Your task to perform on an android device: open app "Facebook Messenger" Image 0: 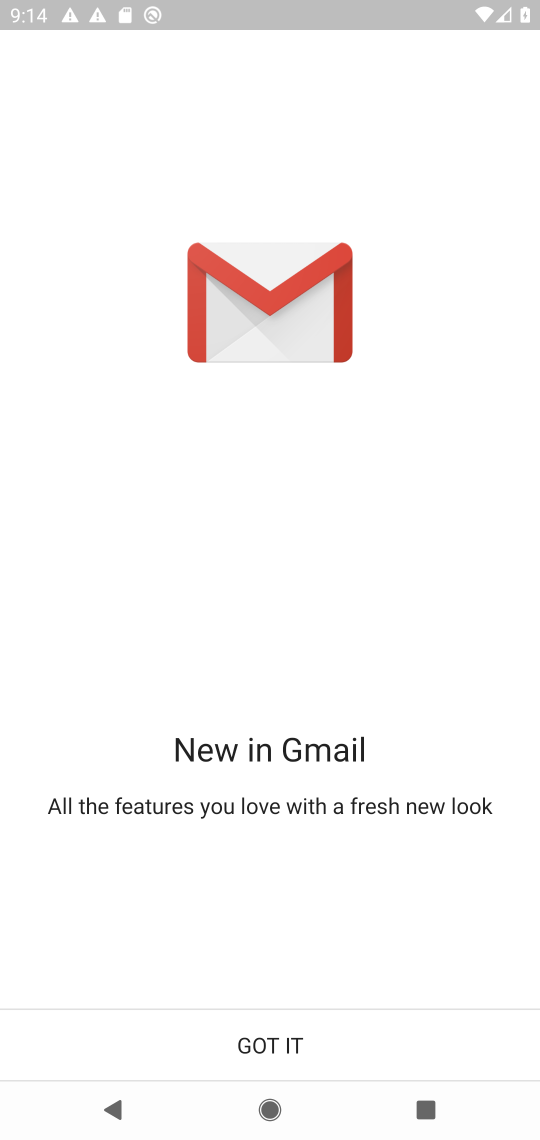
Step 0: press home button
Your task to perform on an android device: open app "Facebook Messenger" Image 1: 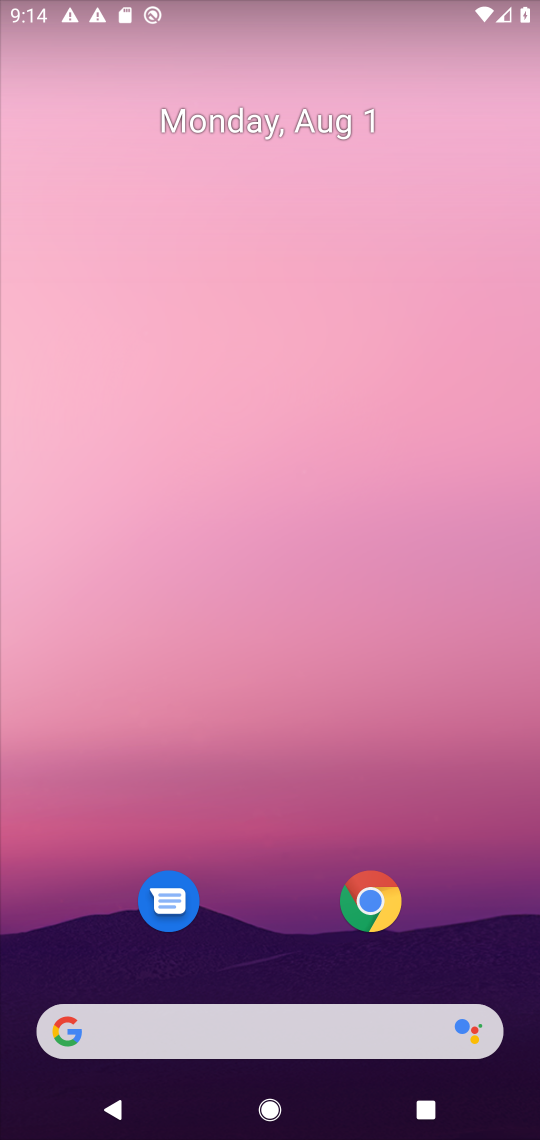
Step 1: drag from (292, 896) to (337, 0)
Your task to perform on an android device: open app "Facebook Messenger" Image 2: 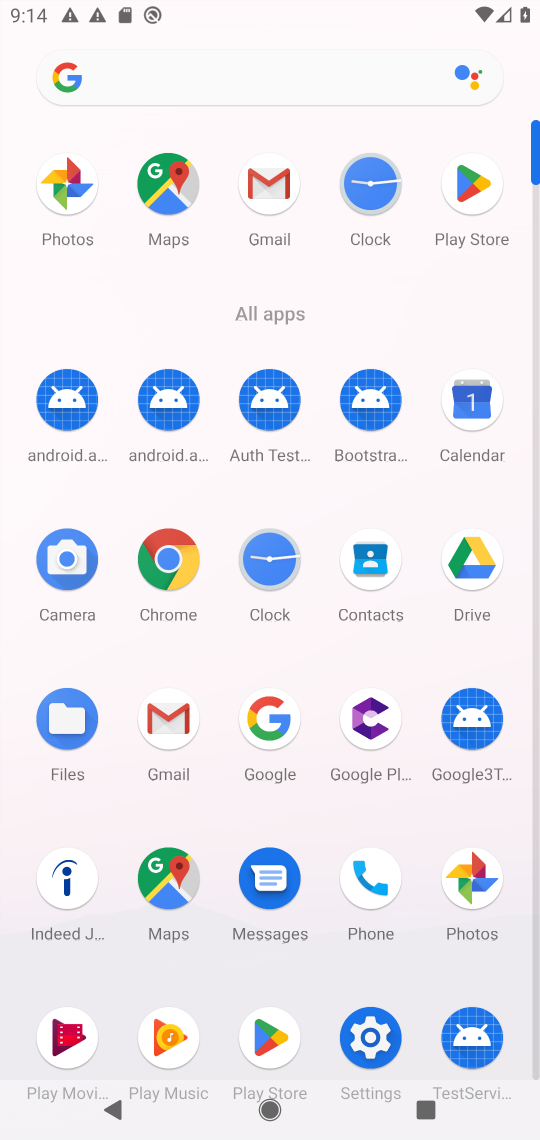
Step 2: click (477, 191)
Your task to perform on an android device: open app "Facebook Messenger" Image 3: 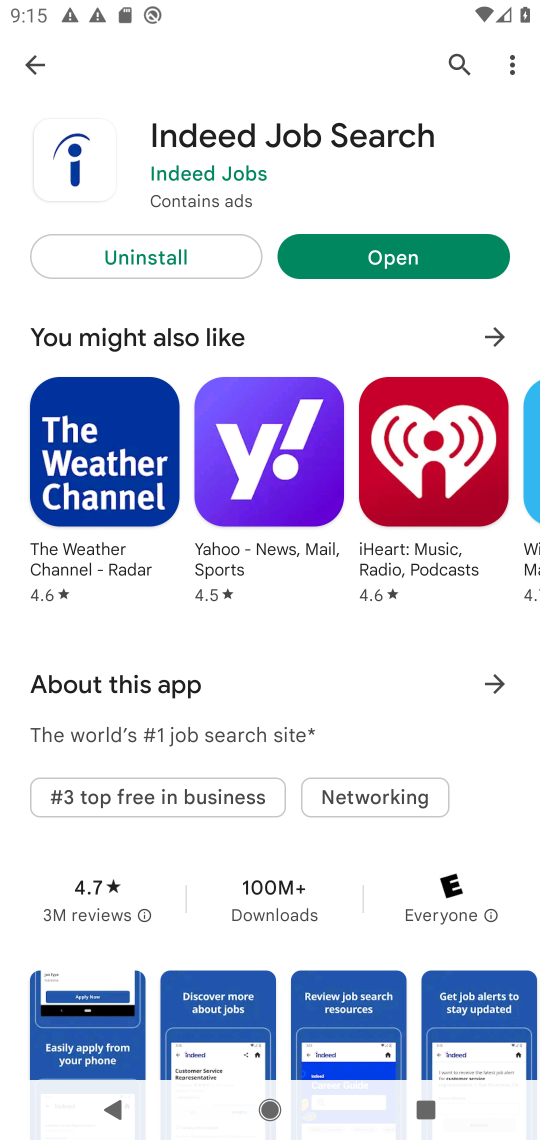
Step 3: click (455, 61)
Your task to perform on an android device: open app "Facebook Messenger" Image 4: 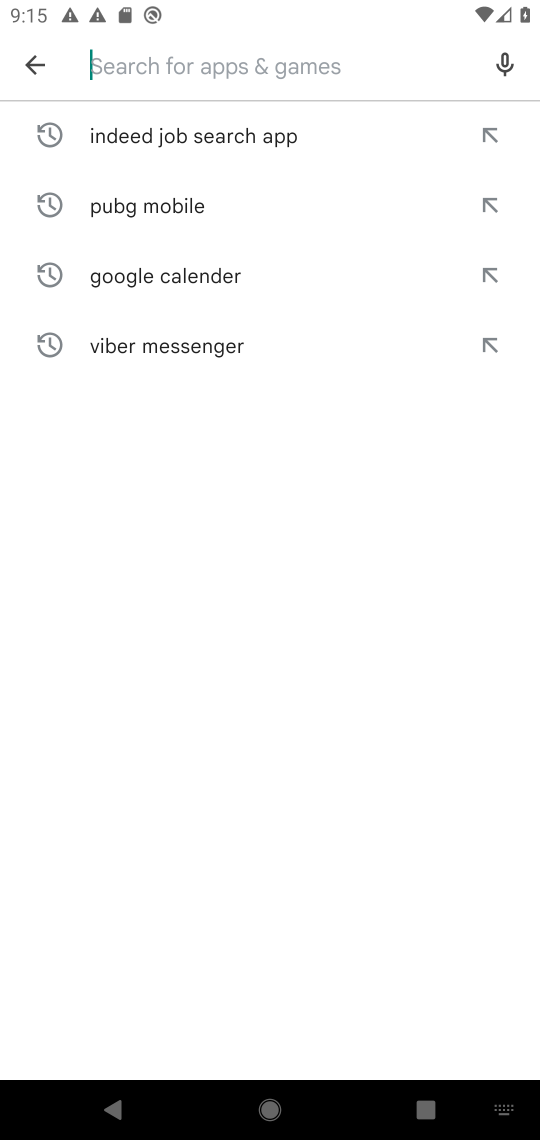
Step 4: type "facebook messenger"
Your task to perform on an android device: open app "Facebook Messenger" Image 5: 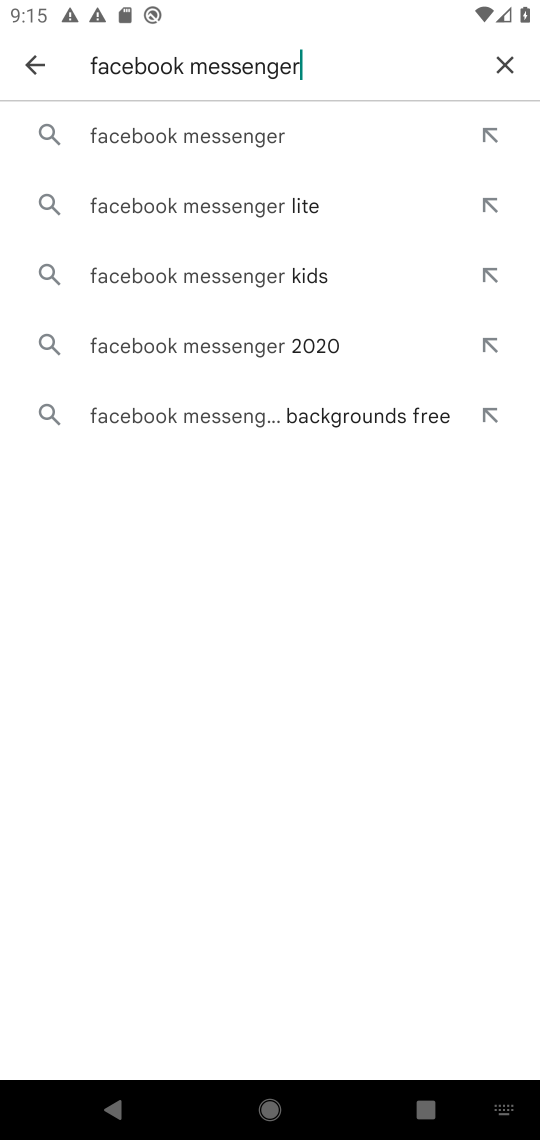
Step 5: click (247, 121)
Your task to perform on an android device: open app "Facebook Messenger" Image 6: 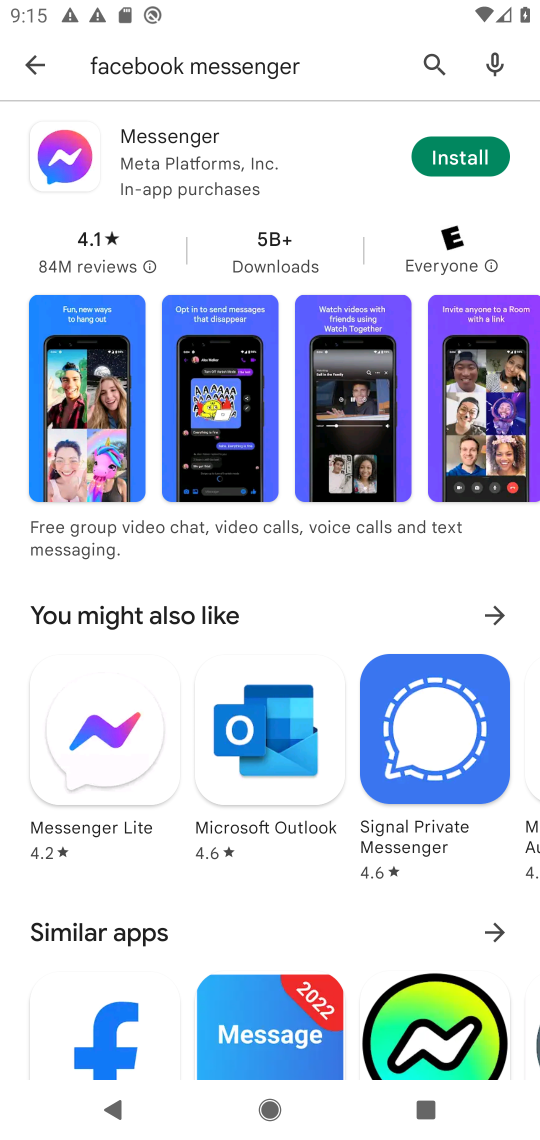
Step 6: click (168, 128)
Your task to perform on an android device: open app "Facebook Messenger" Image 7: 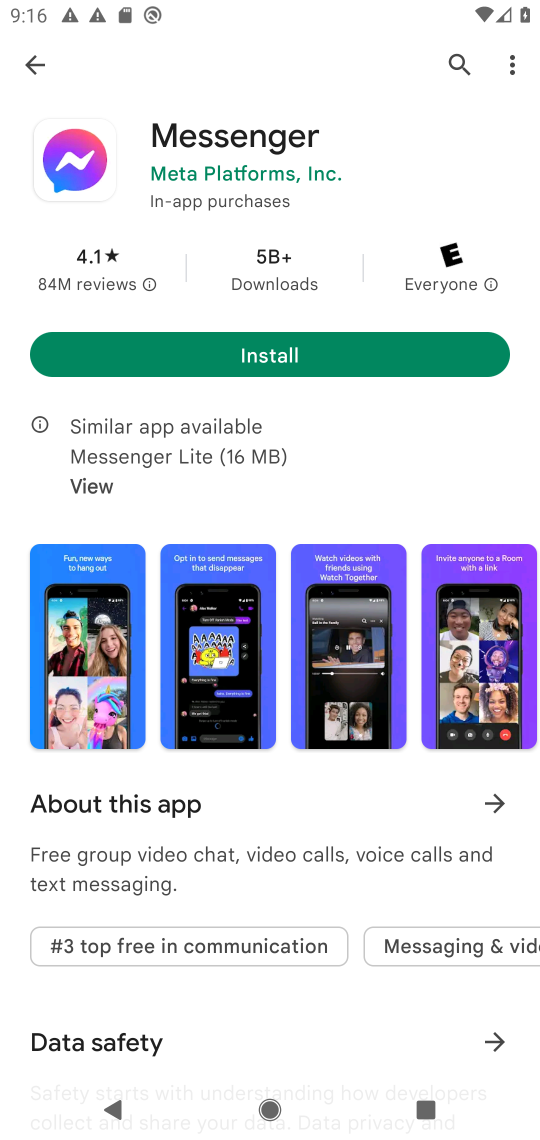
Step 7: task complete